Your task to perform on an android device: open device folders in google photos Image 0: 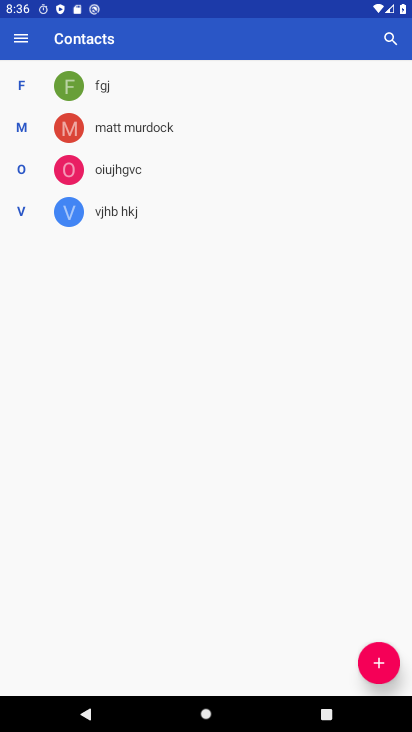
Step 0: drag from (283, 497) to (231, 136)
Your task to perform on an android device: open device folders in google photos Image 1: 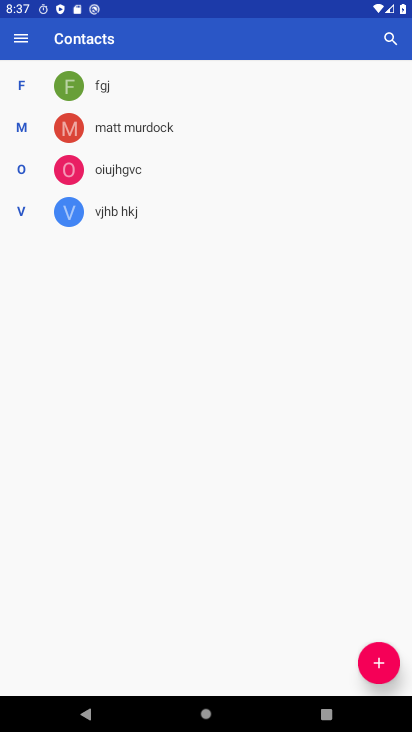
Step 1: press back button
Your task to perform on an android device: open device folders in google photos Image 2: 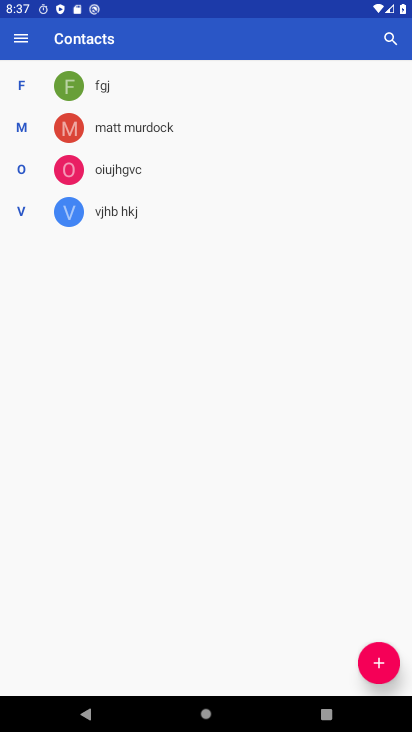
Step 2: press back button
Your task to perform on an android device: open device folders in google photos Image 3: 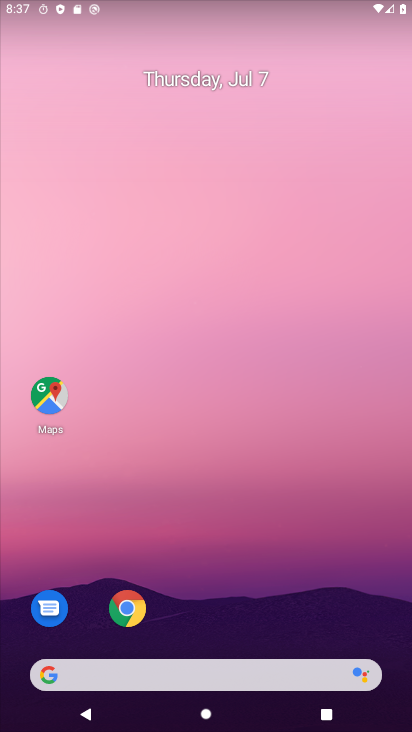
Step 3: drag from (256, 670) to (275, 243)
Your task to perform on an android device: open device folders in google photos Image 4: 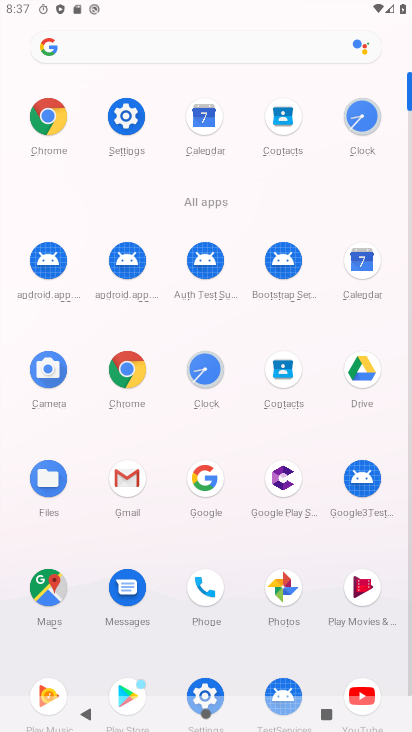
Step 4: click (205, 483)
Your task to perform on an android device: open device folders in google photos Image 5: 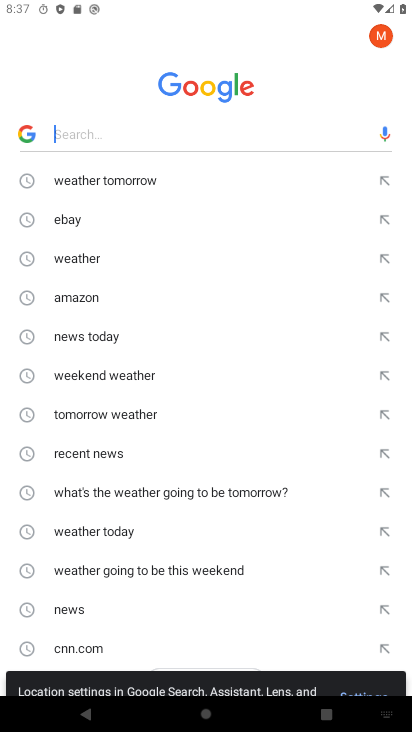
Step 5: press back button
Your task to perform on an android device: open device folders in google photos Image 6: 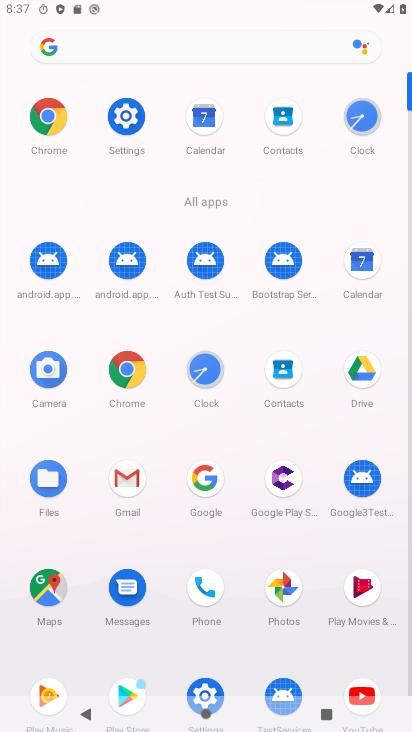
Step 6: click (286, 596)
Your task to perform on an android device: open device folders in google photos Image 7: 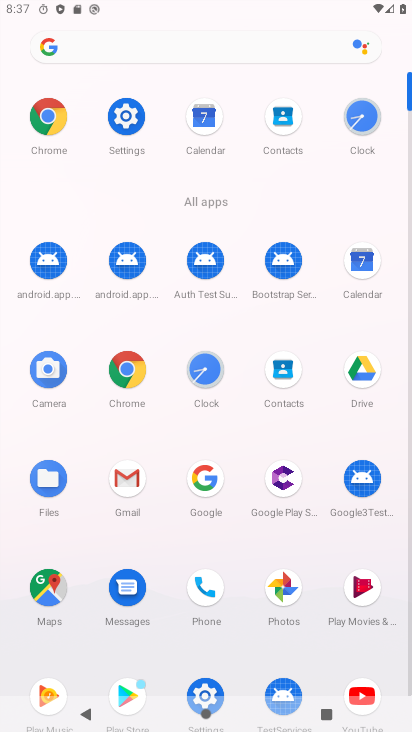
Step 7: click (286, 596)
Your task to perform on an android device: open device folders in google photos Image 8: 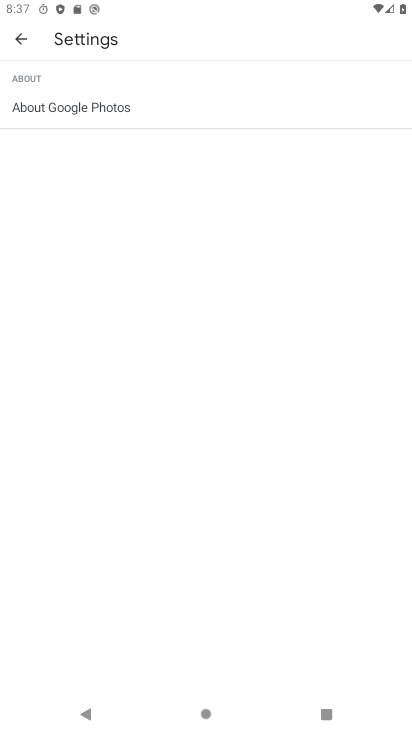
Step 8: click (21, 43)
Your task to perform on an android device: open device folders in google photos Image 9: 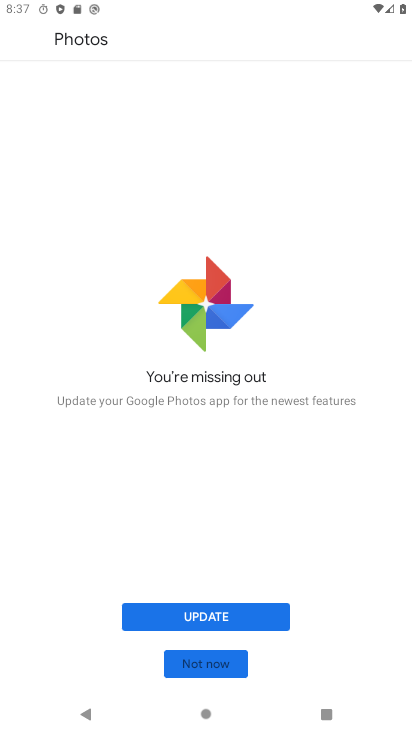
Step 9: click (224, 663)
Your task to perform on an android device: open device folders in google photos Image 10: 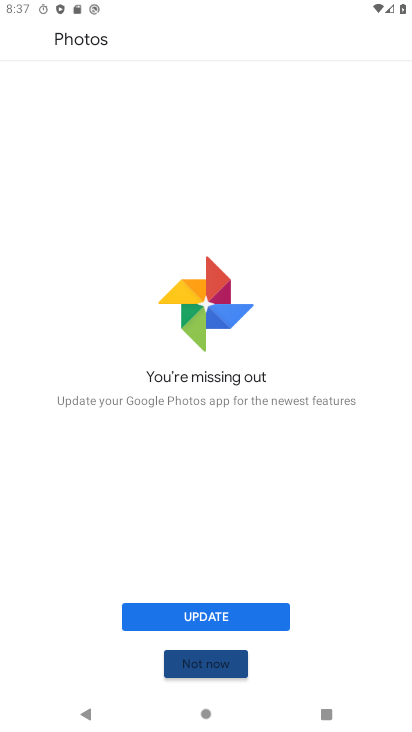
Step 10: click (221, 666)
Your task to perform on an android device: open device folders in google photos Image 11: 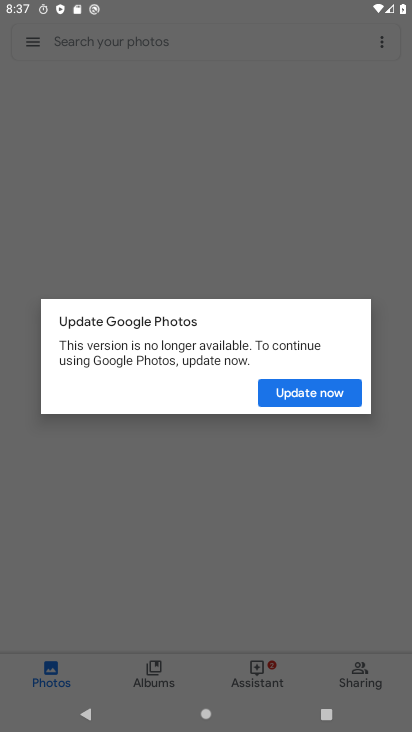
Step 11: click (217, 668)
Your task to perform on an android device: open device folders in google photos Image 12: 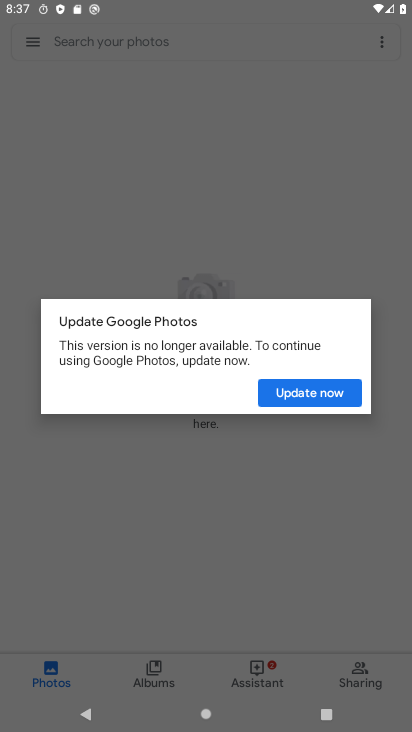
Step 12: click (313, 375)
Your task to perform on an android device: open device folders in google photos Image 13: 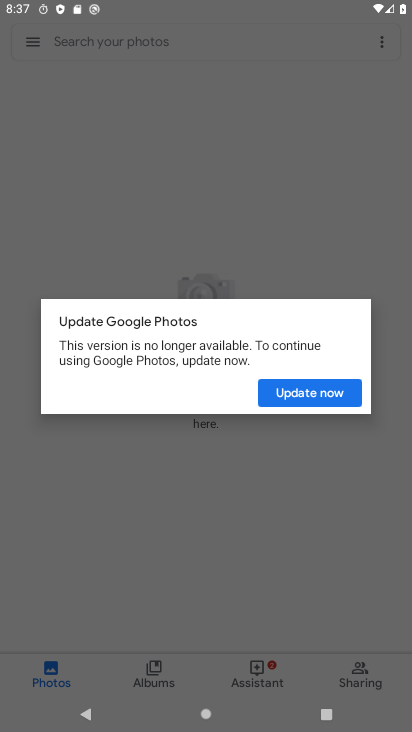
Step 13: click (314, 375)
Your task to perform on an android device: open device folders in google photos Image 14: 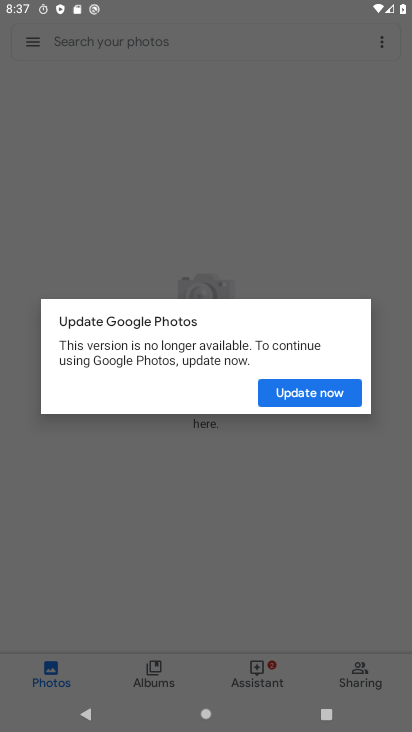
Step 14: click (315, 391)
Your task to perform on an android device: open device folders in google photos Image 15: 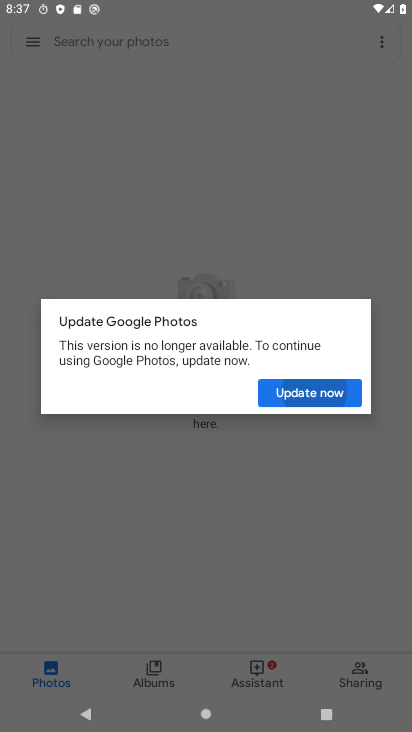
Step 15: click (318, 389)
Your task to perform on an android device: open device folders in google photos Image 16: 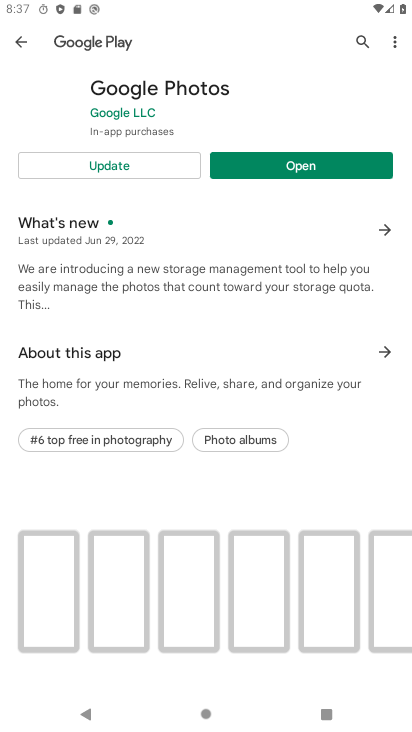
Step 16: press back button
Your task to perform on an android device: open device folders in google photos Image 17: 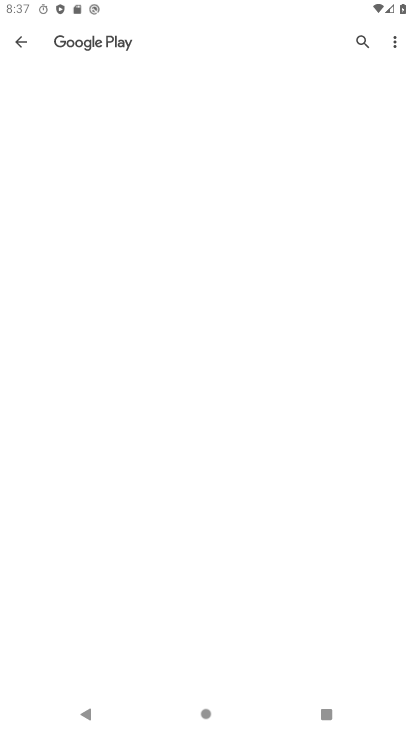
Step 17: press back button
Your task to perform on an android device: open device folders in google photos Image 18: 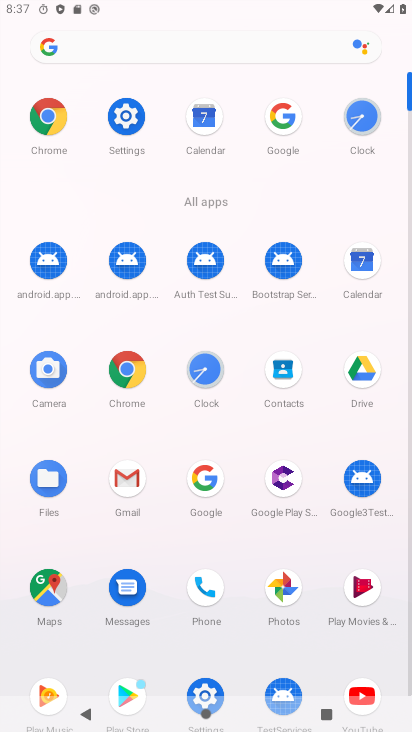
Step 18: click (23, 45)
Your task to perform on an android device: open device folders in google photos Image 19: 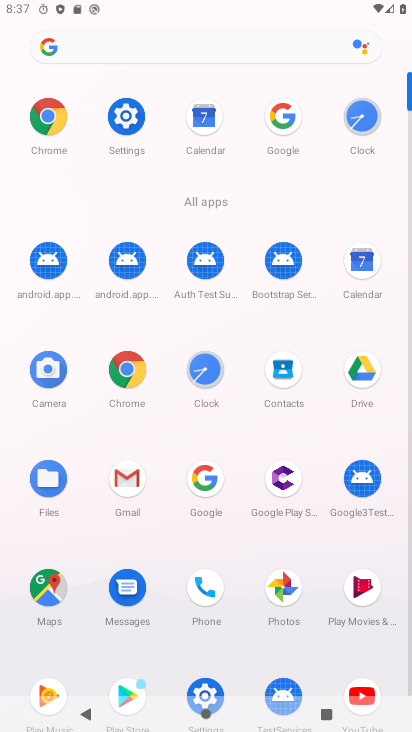
Step 19: click (283, 584)
Your task to perform on an android device: open device folders in google photos Image 20: 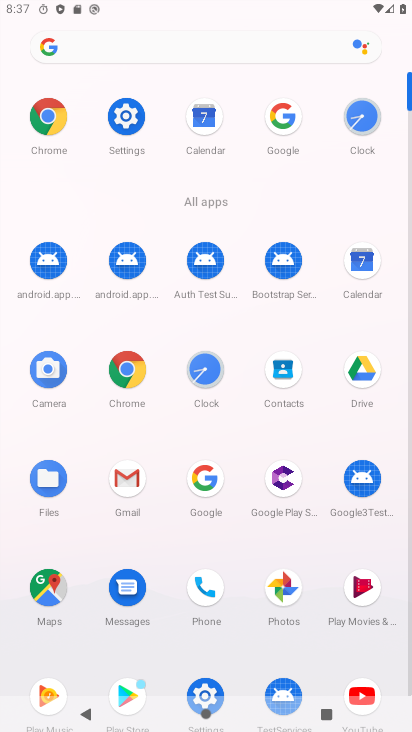
Step 20: click (284, 583)
Your task to perform on an android device: open device folders in google photos Image 21: 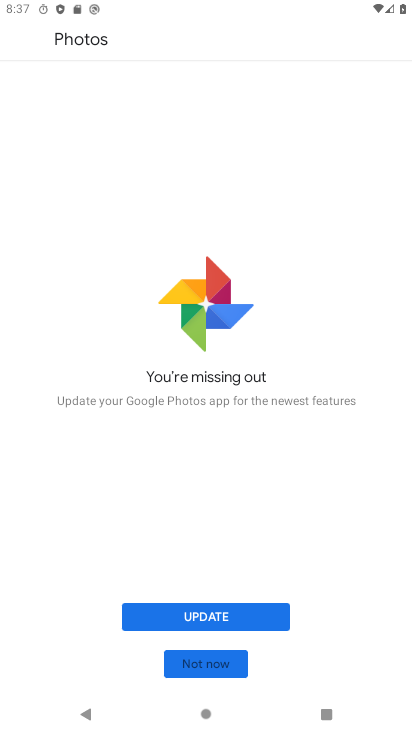
Step 21: click (38, 50)
Your task to perform on an android device: open device folders in google photos Image 22: 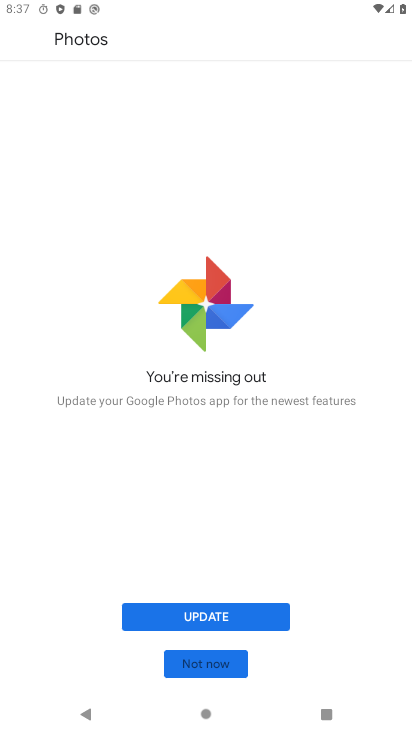
Step 22: task complete